Your task to perform on an android device: change keyboard looks Image 0: 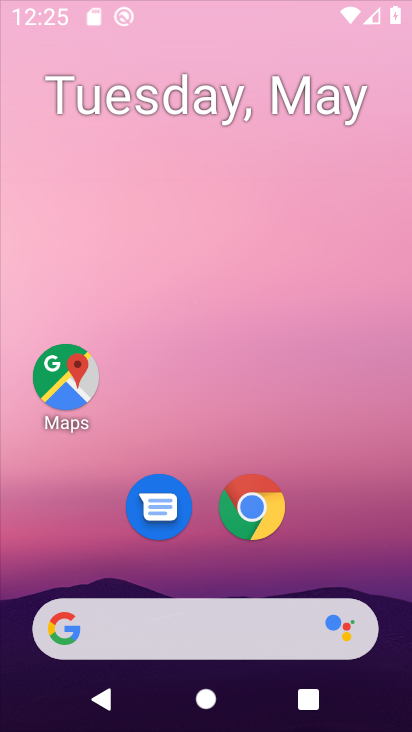
Step 0: drag from (168, 154) to (201, 120)
Your task to perform on an android device: change keyboard looks Image 1: 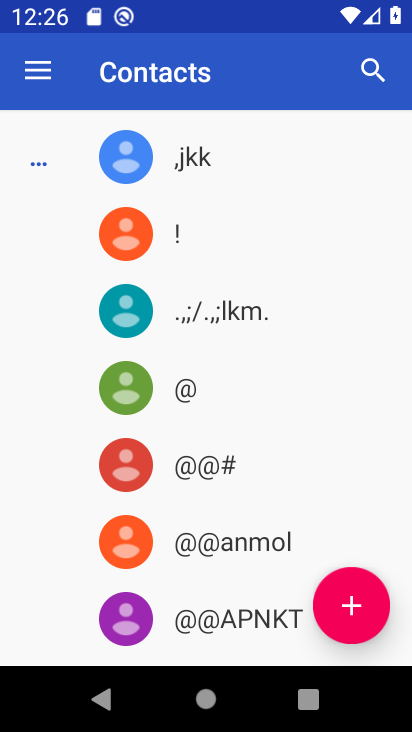
Step 1: press back button
Your task to perform on an android device: change keyboard looks Image 2: 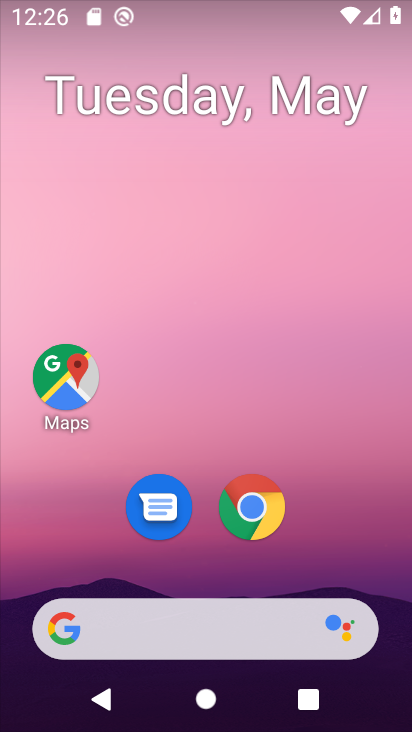
Step 2: drag from (239, 561) to (126, 106)
Your task to perform on an android device: change keyboard looks Image 3: 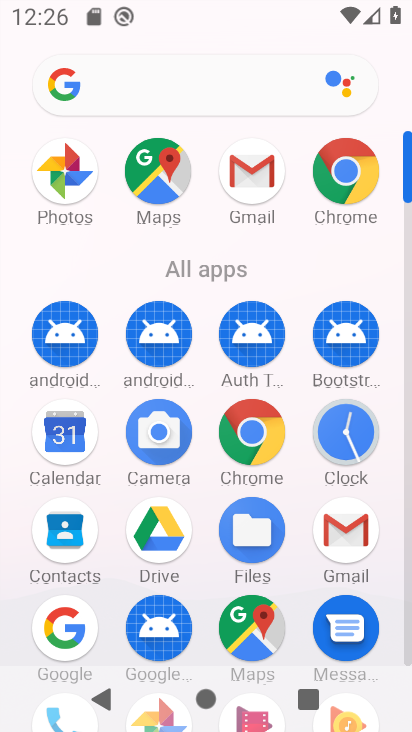
Step 3: drag from (271, 584) to (189, 224)
Your task to perform on an android device: change keyboard looks Image 4: 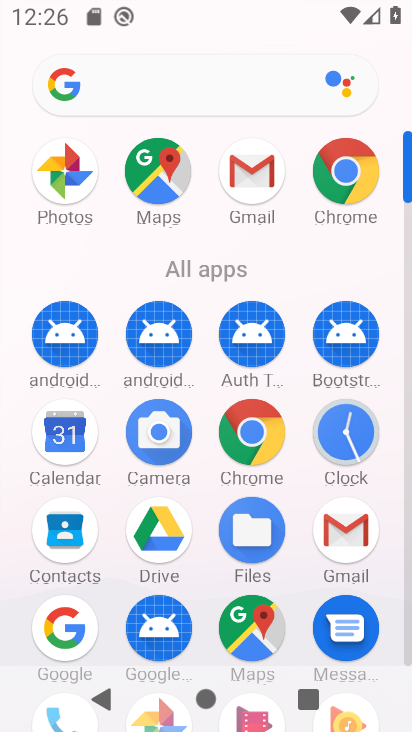
Step 4: drag from (276, 512) to (212, 224)
Your task to perform on an android device: change keyboard looks Image 5: 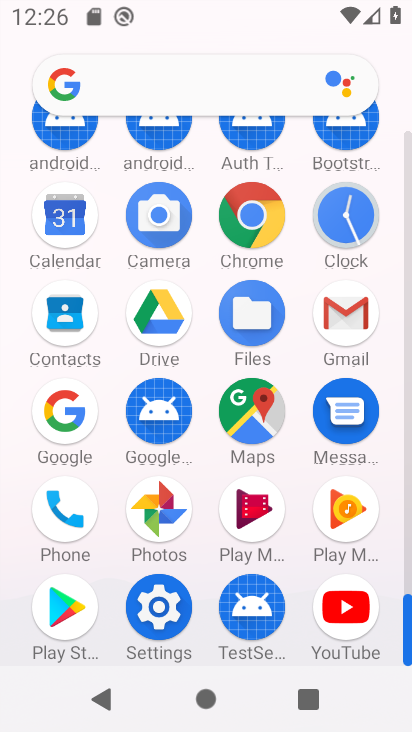
Step 5: click (158, 611)
Your task to perform on an android device: change keyboard looks Image 6: 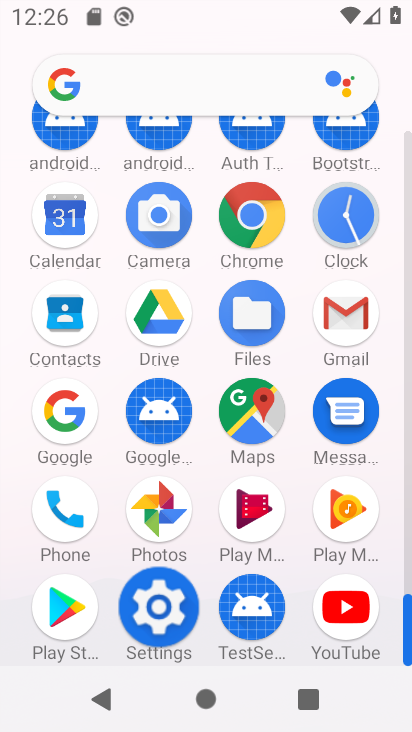
Step 6: click (135, 623)
Your task to perform on an android device: change keyboard looks Image 7: 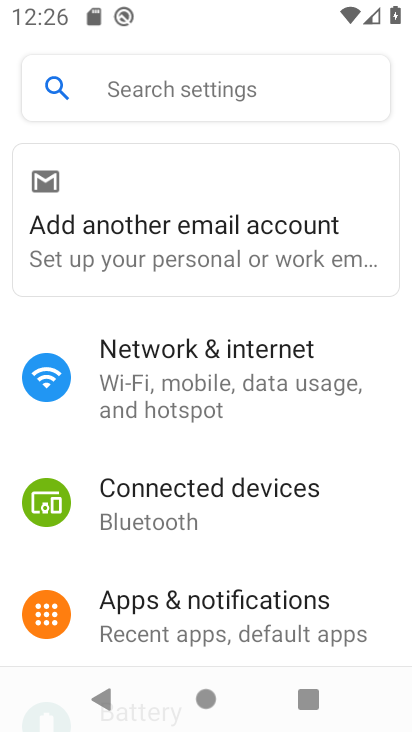
Step 7: drag from (209, 518) to (160, 230)
Your task to perform on an android device: change keyboard looks Image 8: 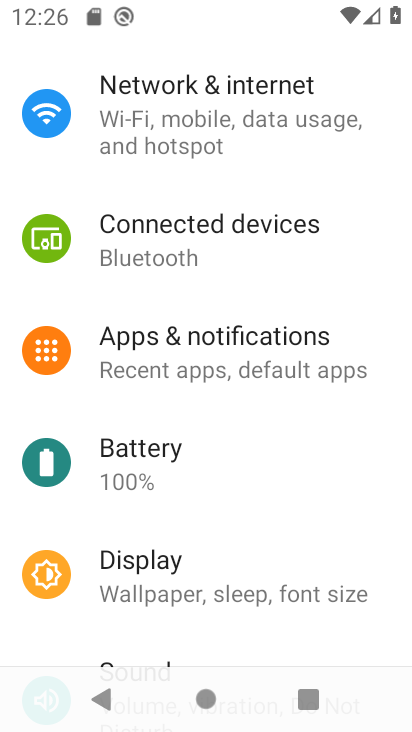
Step 8: drag from (216, 483) to (179, 234)
Your task to perform on an android device: change keyboard looks Image 9: 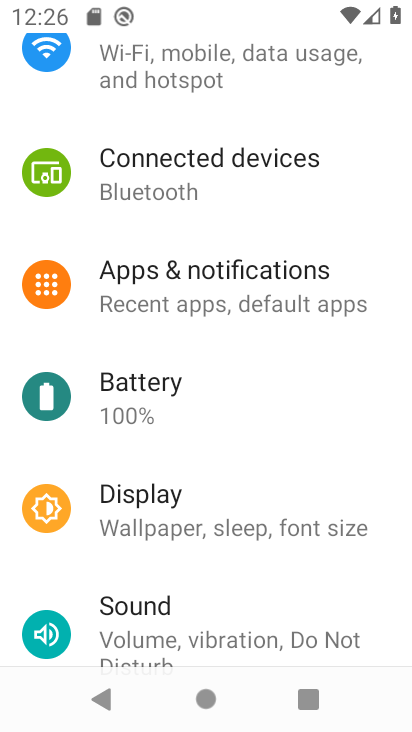
Step 9: drag from (208, 410) to (161, 186)
Your task to perform on an android device: change keyboard looks Image 10: 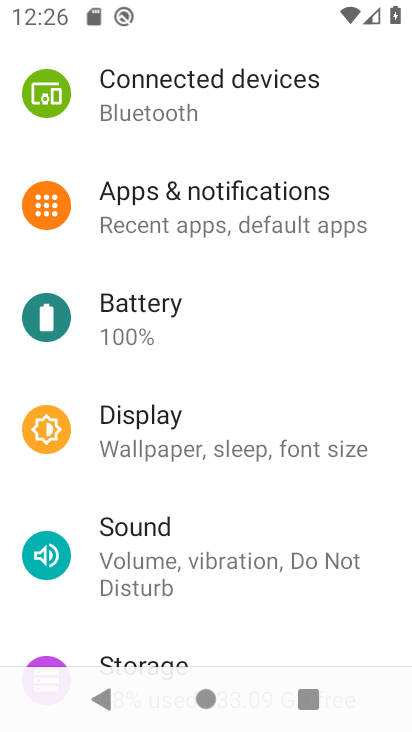
Step 10: drag from (209, 539) to (165, 140)
Your task to perform on an android device: change keyboard looks Image 11: 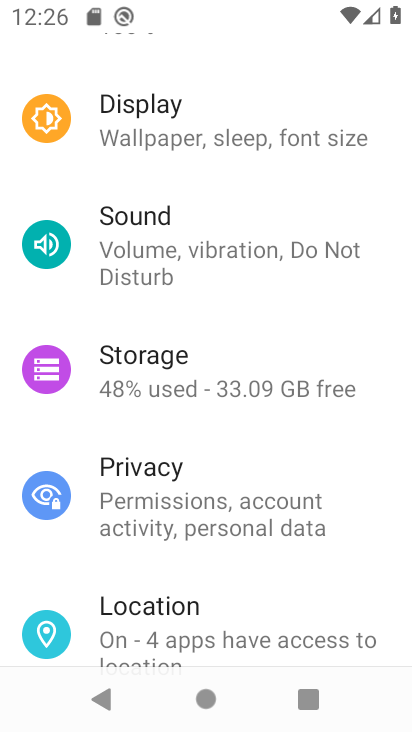
Step 11: drag from (148, 376) to (129, 115)
Your task to perform on an android device: change keyboard looks Image 12: 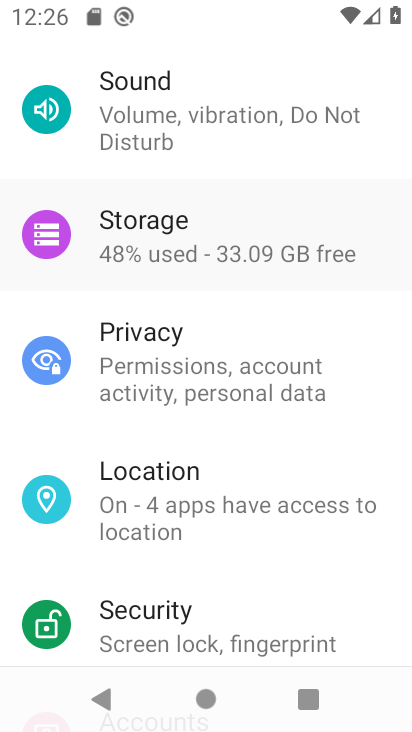
Step 12: drag from (167, 421) to (157, 192)
Your task to perform on an android device: change keyboard looks Image 13: 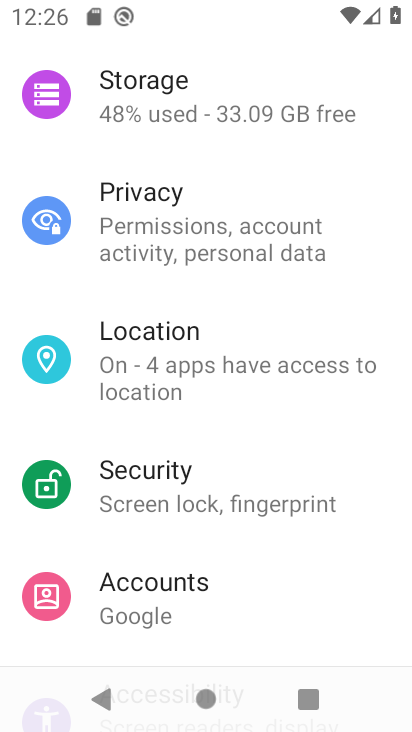
Step 13: drag from (177, 382) to (164, 205)
Your task to perform on an android device: change keyboard looks Image 14: 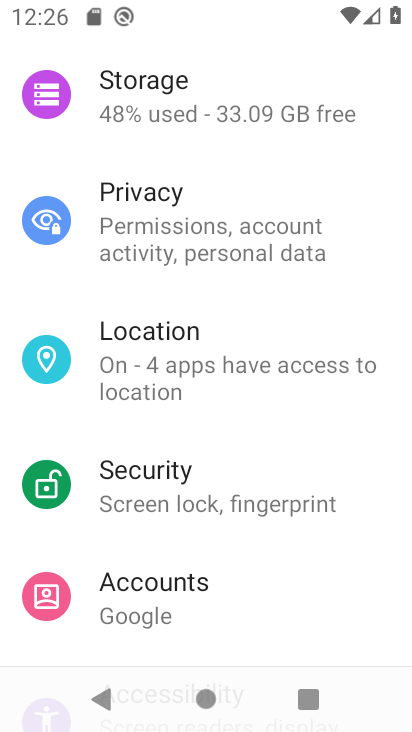
Step 14: drag from (180, 489) to (141, 226)
Your task to perform on an android device: change keyboard looks Image 15: 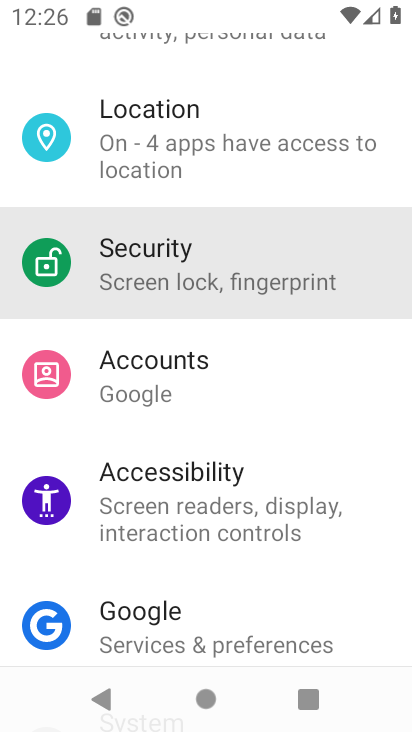
Step 15: drag from (175, 478) to (161, 201)
Your task to perform on an android device: change keyboard looks Image 16: 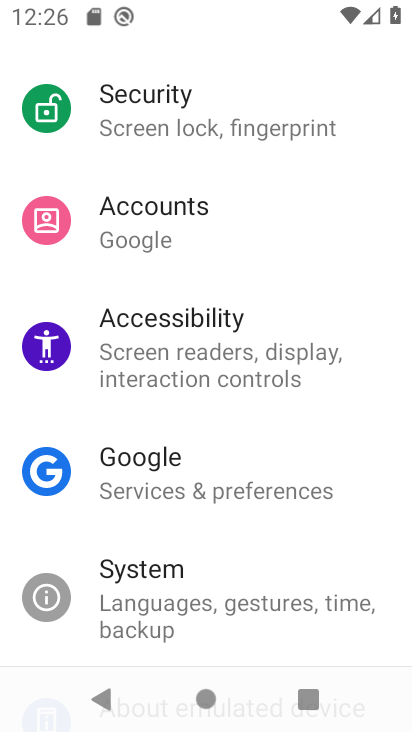
Step 16: click (161, 584)
Your task to perform on an android device: change keyboard looks Image 17: 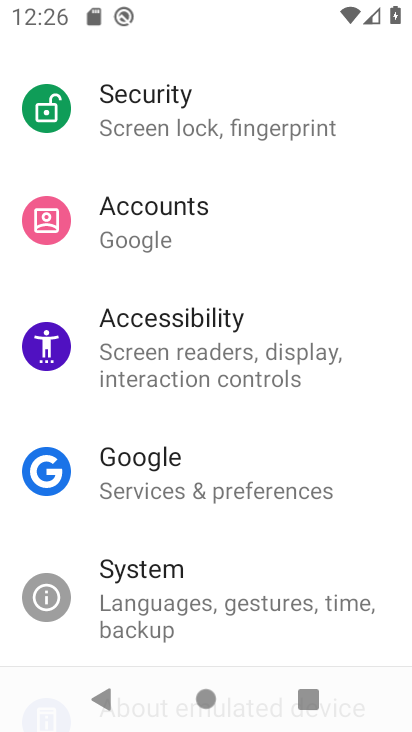
Step 17: click (165, 584)
Your task to perform on an android device: change keyboard looks Image 18: 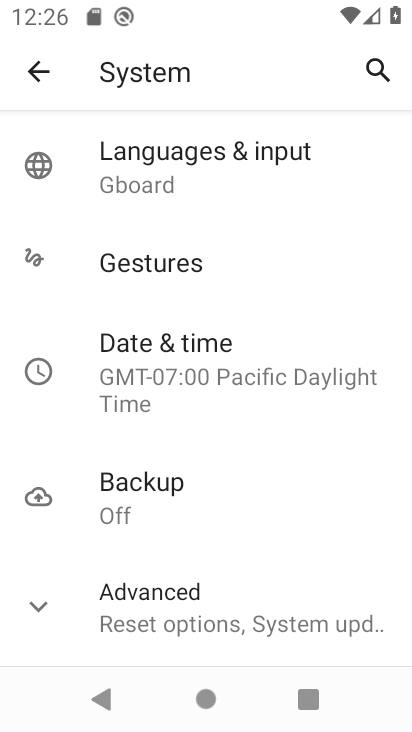
Step 18: click (142, 173)
Your task to perform on an android device: change keyboard looks Image 19: 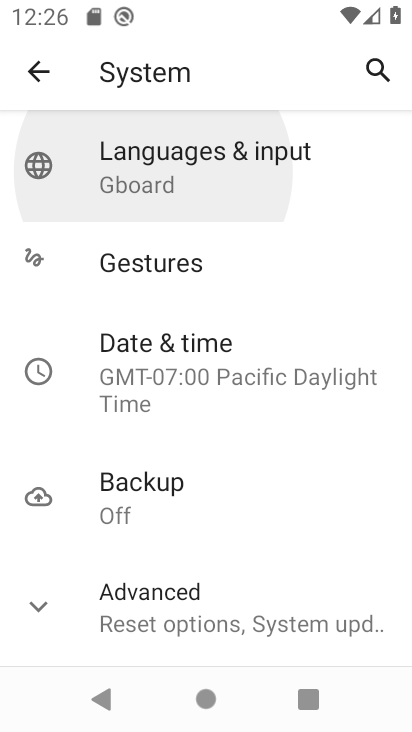
Step 19: click (146, 174)
Your task to perform on an android device: change keyboard looks Image 20: 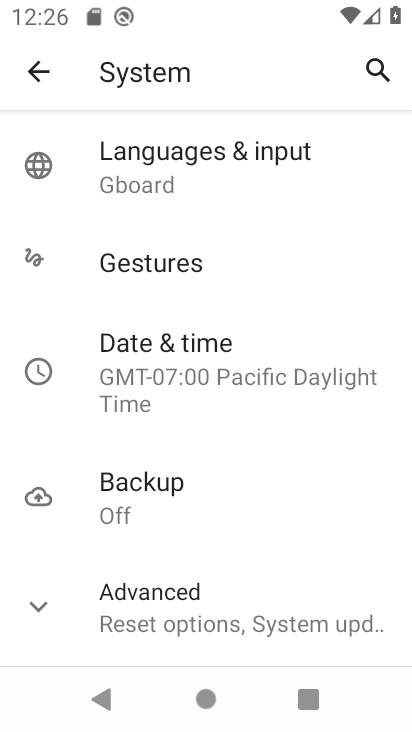
Step 20: click (147, 174)
Your task to perform on an android device: change keyboard looks Image 21: 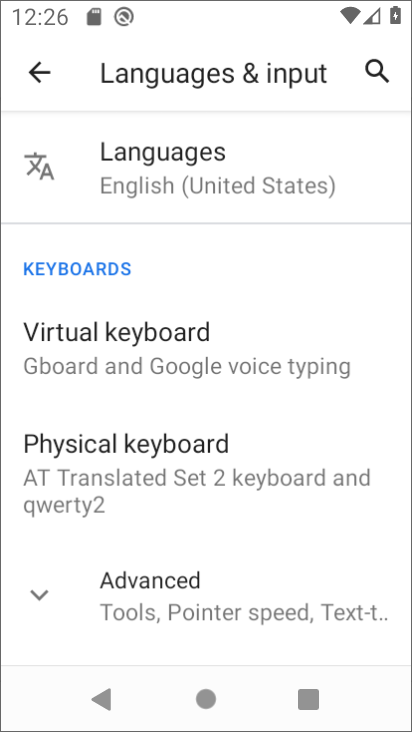
Step 21: click (141, 177)
Your task to perform on an android device: change keyboard looks Image 22: 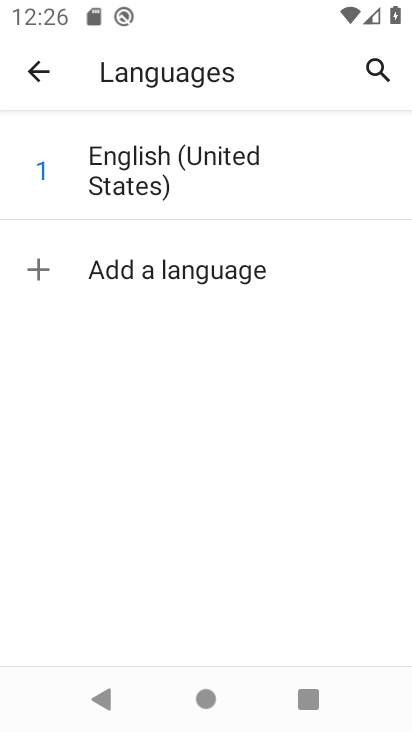
Step 22: click (37, 80)
Your task to perform on an android device: change keyboard looks Image 23: 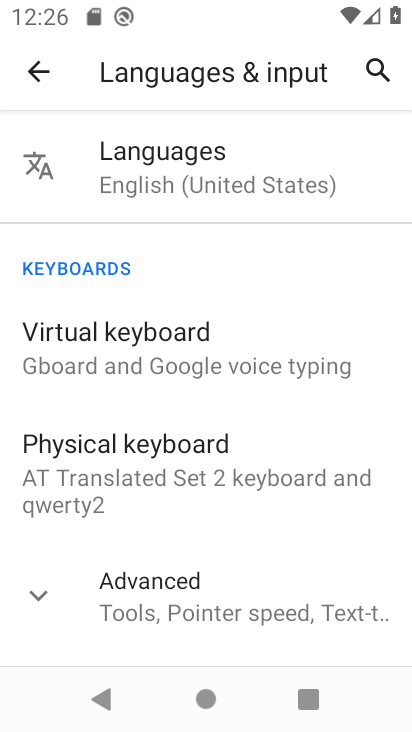
Step 23: click (94, 348)
Your task to perform on an android device: change keyboard looks Image 24: 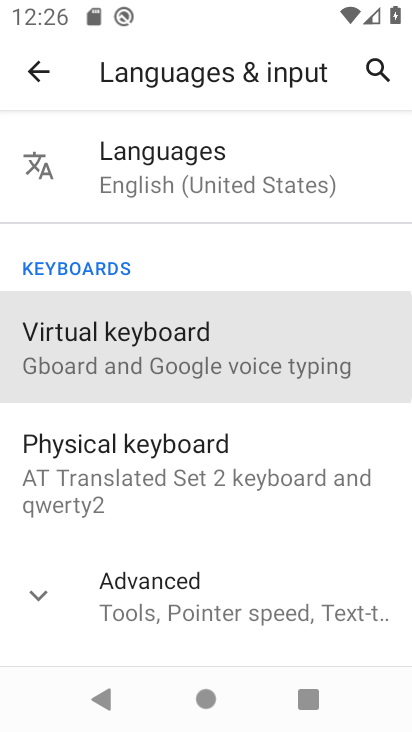
Step 24: click (94, 348)
Your task to perform on an android device: change keyboard looks Image 25: 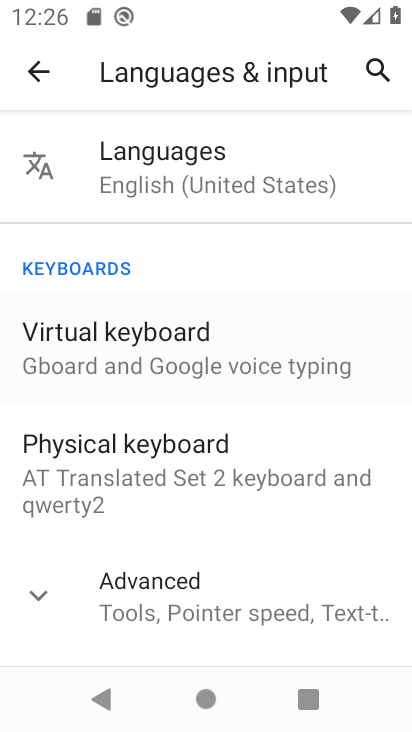
Step 25: click (94, 348)
Your task to perform on an android device: change keyboard looks Image 26: 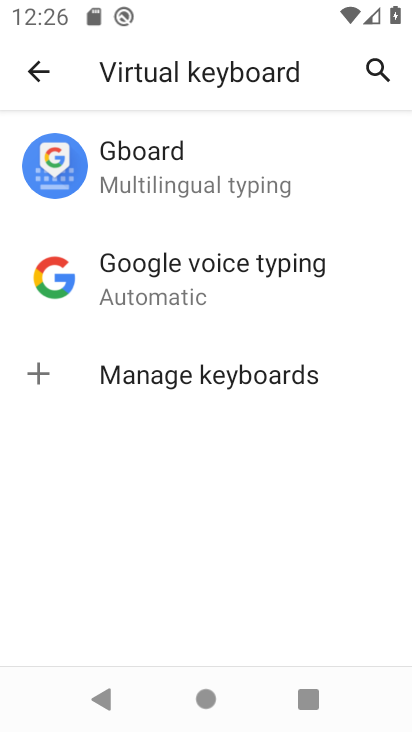
Step 26: click (145, 147)
Your task to perform on an android device: change keyboard looks Image 27: 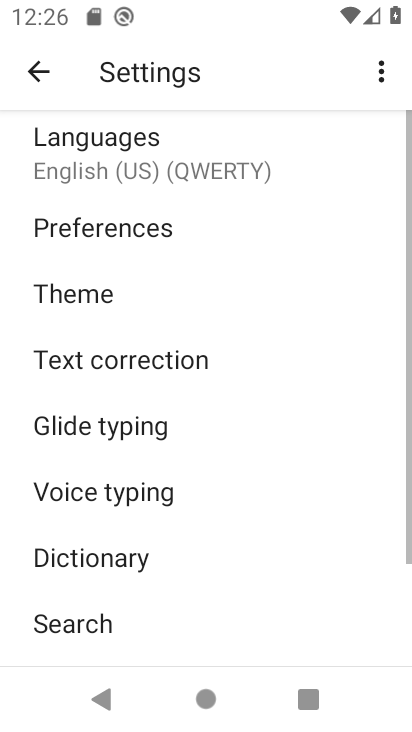
Step 27: click (167, 185)
Your task to perform on an android device: change keyboard looks Image 28: 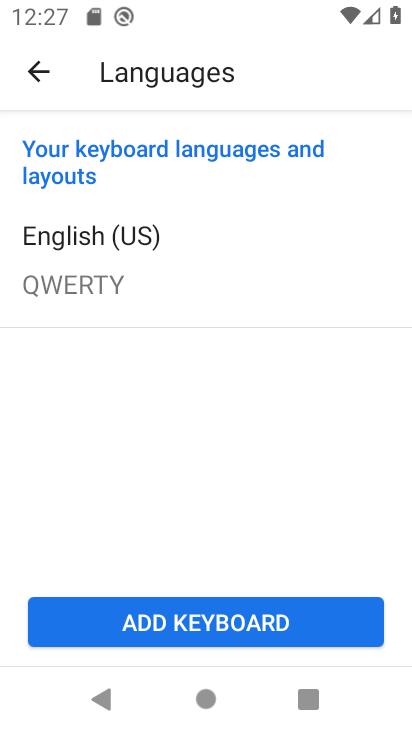
Step 28: click (29, 73)
Your task to perform on an android device: change keyboard looks Image 29: 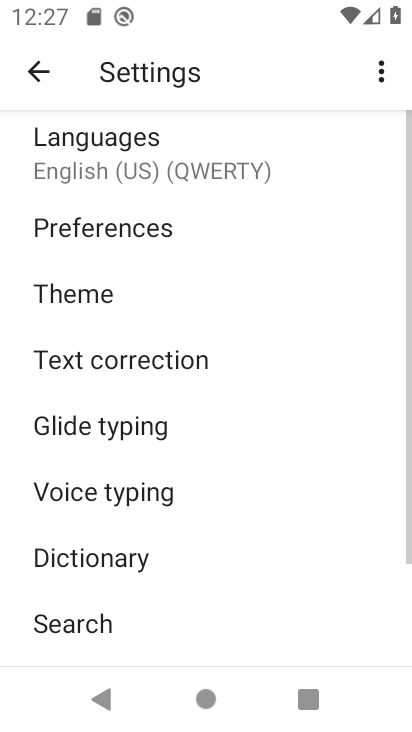
Step 29: click (76, 292)
Your task to perform on an android device: change keyboard looks Image 30: 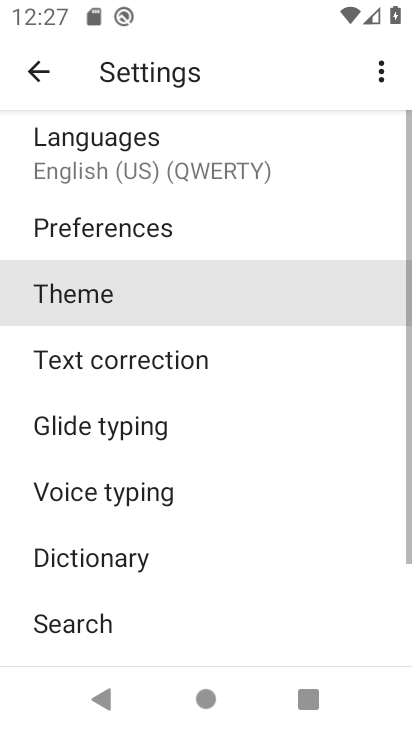
Step 30: click (79, 294)
Your task to perform on an android device: change keyboard looks Image 31: 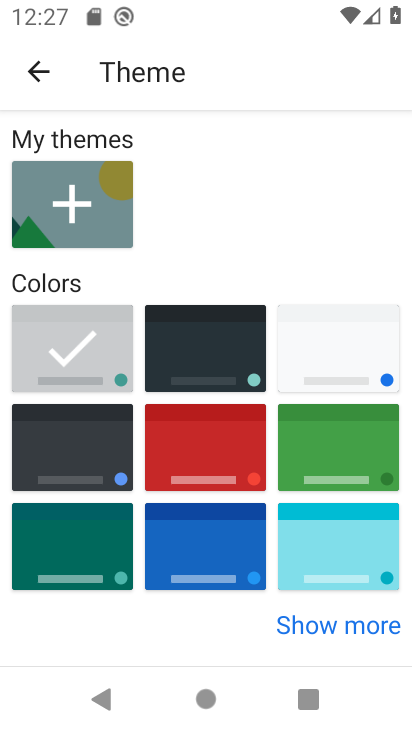
Step 31: click (203, 463)
Your task to perform on an android device: change keyboard looks Image 32: 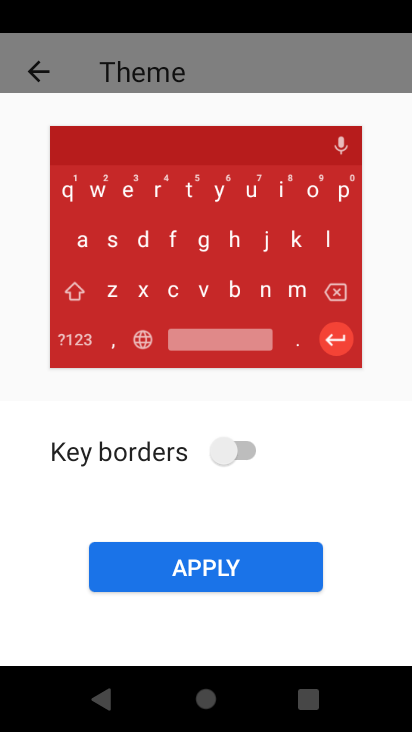
Step 32: click (199, 566)
Your task to perform on an android device: change keyboard looks Image 33: 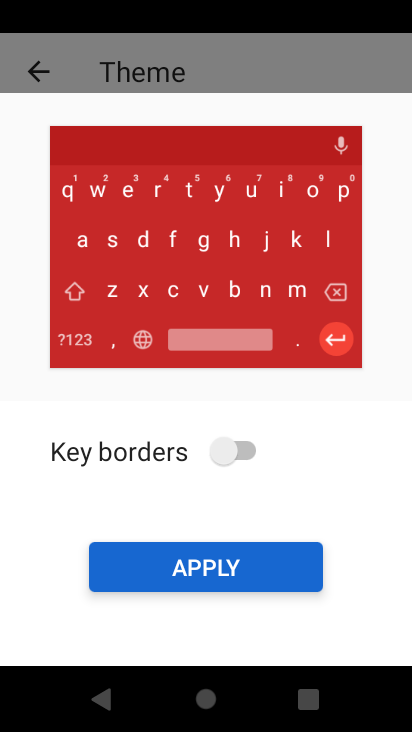
Step 33: click (198, 564)
Your task to perform on an android device: change keyboard looks Image 34: 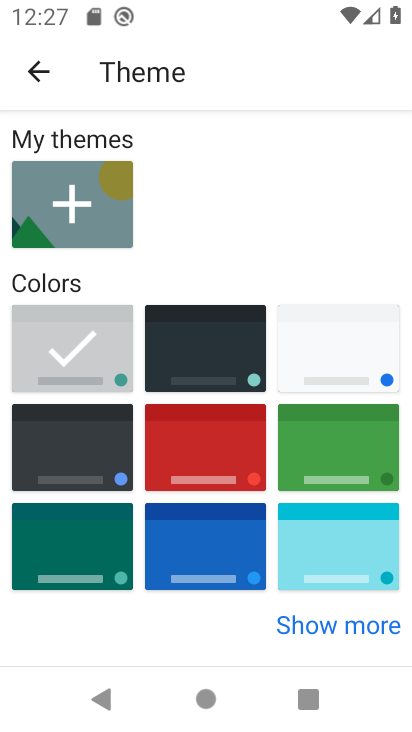
Step 34: click (198, 564)
Your task to perform on an android device: change keyboard looks Image 35: 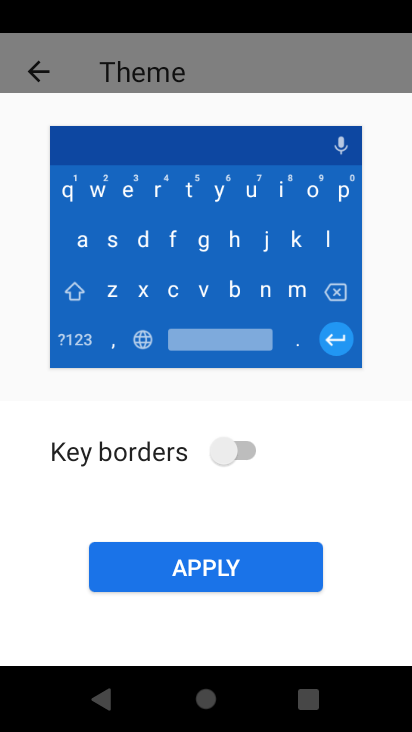
Step 35: task complete